Your task to perform on an android device: Open internet settings Image 0: 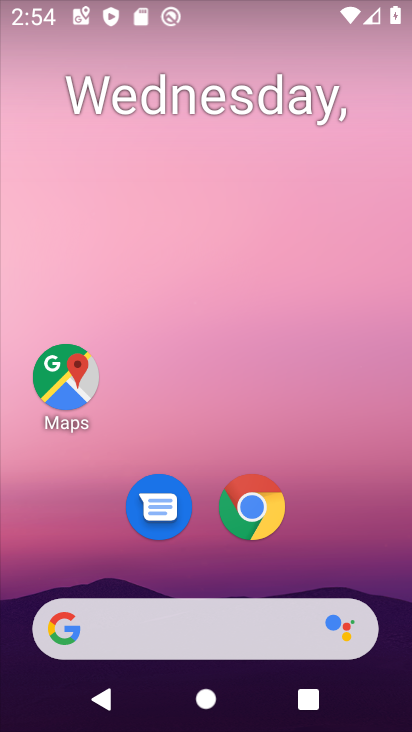
Step 0: drag from (344, 495) to (347, 191)
Your task to perform on an android device: Open internet settings Image 1: 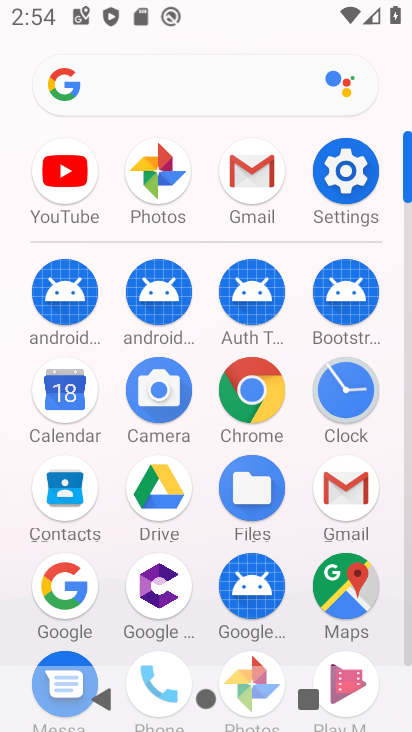
Step 1: click (339, 173)
Your task to perform on an android device: Open internet settings Image 2: 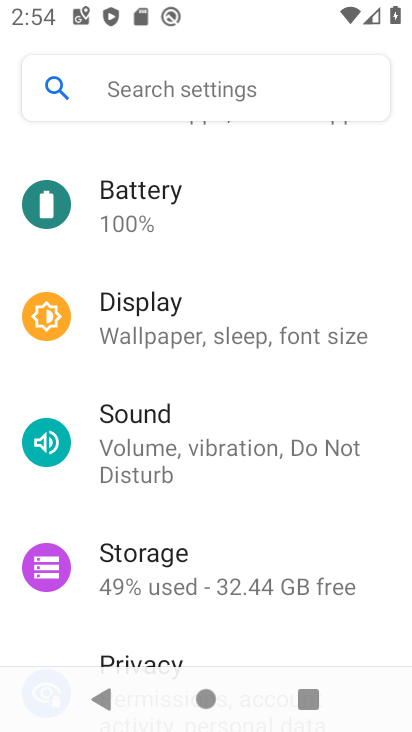
Step 2: drag from (335, 211) to (332, 473)
Your task to perform on an android device: Open internet settings Image 3: 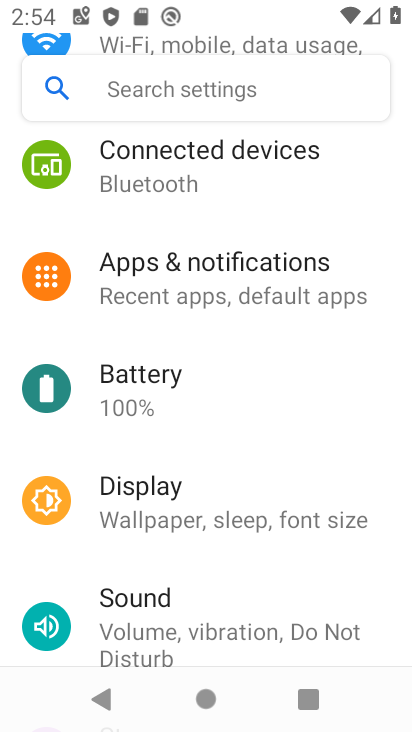
Step 3: drag from (339, 144) to (304, 617)
Your task to perform on an android device: Open internet settings Image 4: 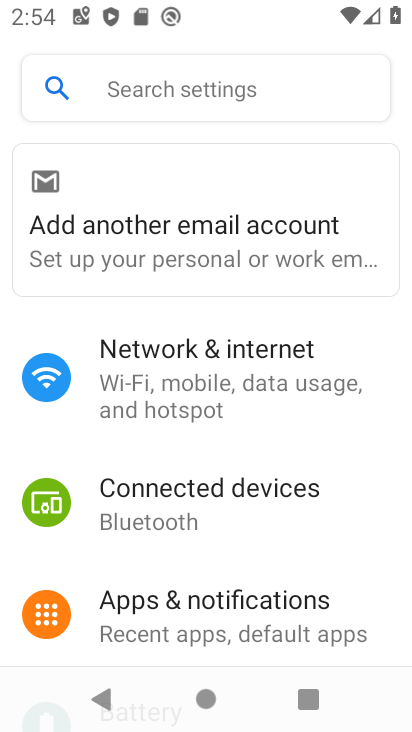
Step 4: click (277, 364)
Your task to perform on an android device: Open internet settings Image 5: 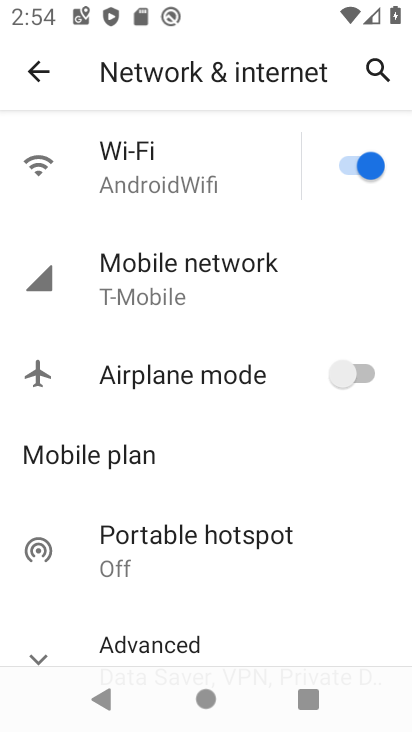
Step 5: task complete